Your task to perform on an android device: What's the weather going to be tomorrow? Image 0: 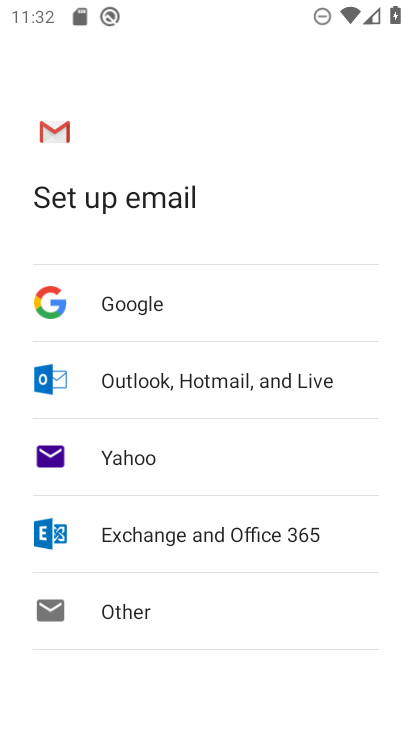
Step 0: press home button
Your task to perform on an android device: What's the weather going to be tomorrow? Image 1: 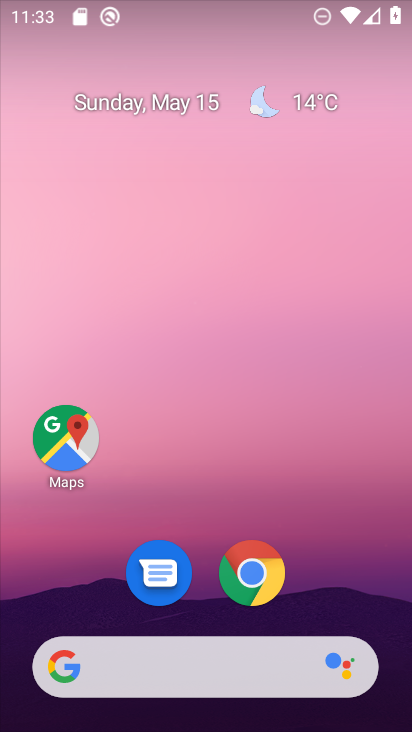
Step 1: click (183, 660)
Your task to perform on an android device: What's the weather going to be tomorrow? Image 2: 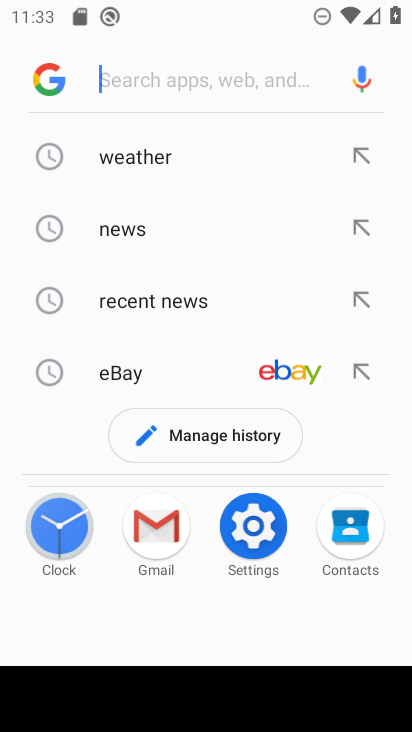
Step 2: click (157, 150)
Your task to perform on an android device: What's the weather going to be tomorrow? Image 3: 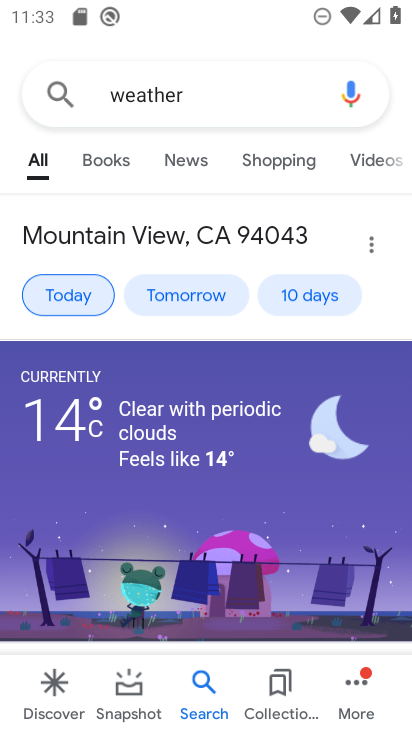
Step 3: click (159, 304)
Your task to perform on an android device: What's the weather going to be tomorrow? Image 4: 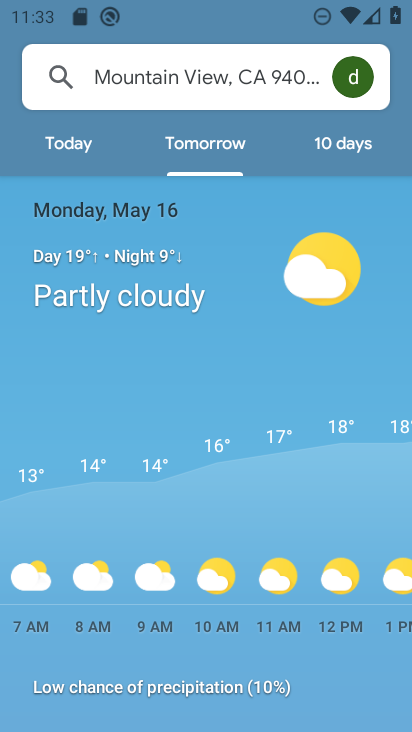
Step 4: task complete